Your task to perform on an android device: toggle pop-ups in chrome Image 0: 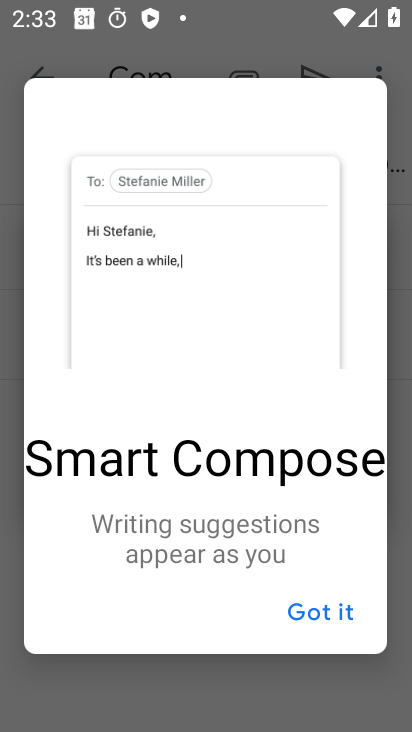
Step 0: press back button
Your task to perform on an android device: toggle pop-ups in chrome Image 1: 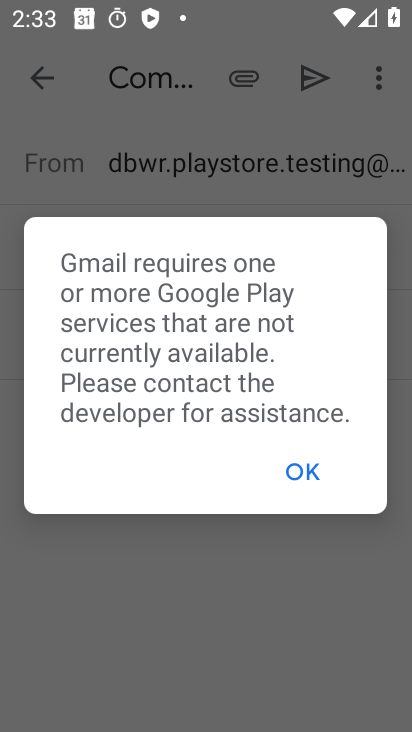
Step 1: press home button
Your task to perform on an android device: toggle pop-ups in chrome Image 2: 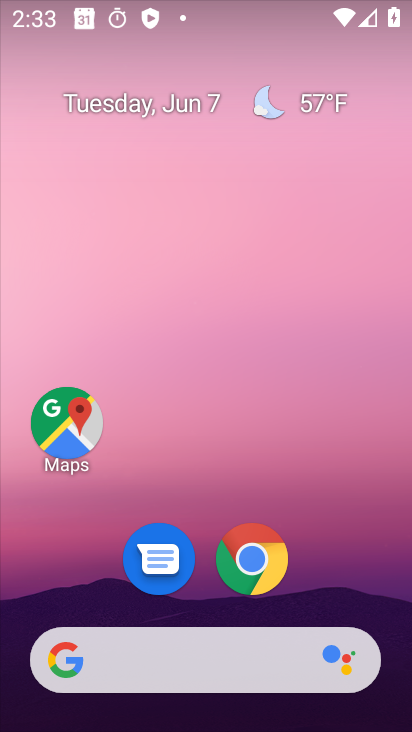
Step 2: drag from (323, 587) to (280, 0)
Your task to perform on an android device: toggle pop-ups in chrome Image 3: 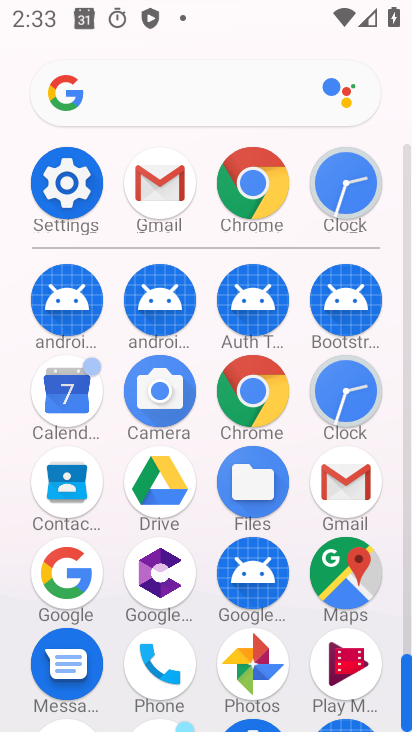
Step 3: click (253, 177)
Your task to perform on an android device: toggle pop-ups in chrome Image 4: 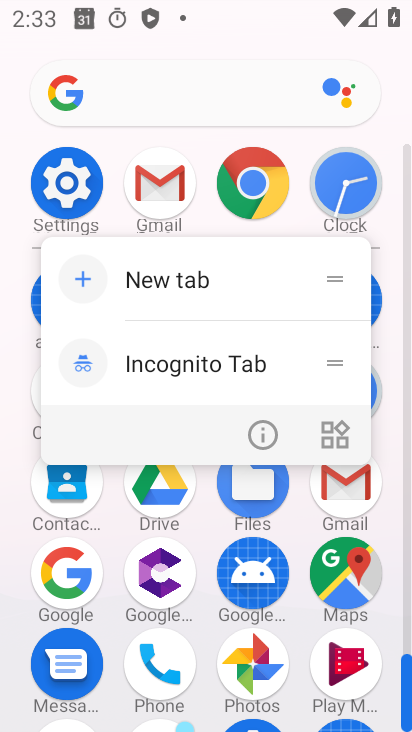
Step 4: click (253, 177)
Your task to perform on an android device: toggle pop-ups in chrome Image 5: 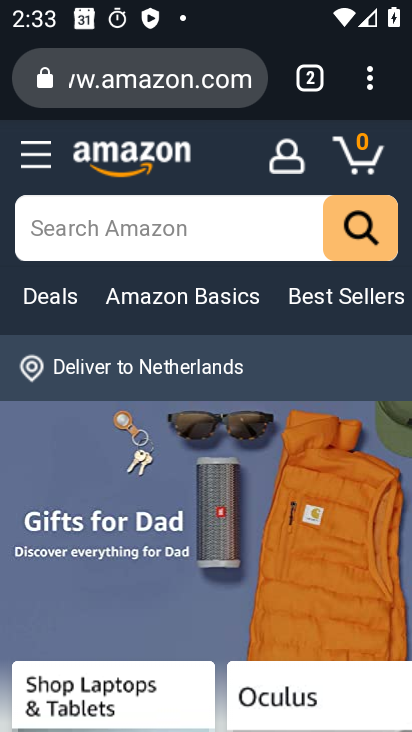
Step 5: task complete